Your task to perform on an android device: add a label to a message in the gmail app Image 0: 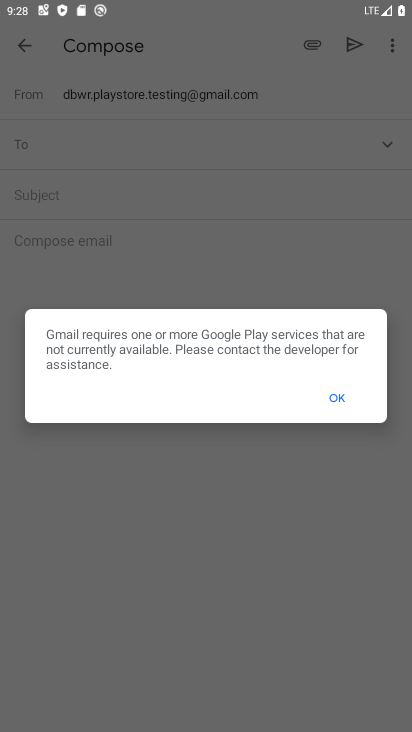
Step 0: click (353, 394)
Your task to perform on an android device: add a label to a message in the gmail app Image 1: 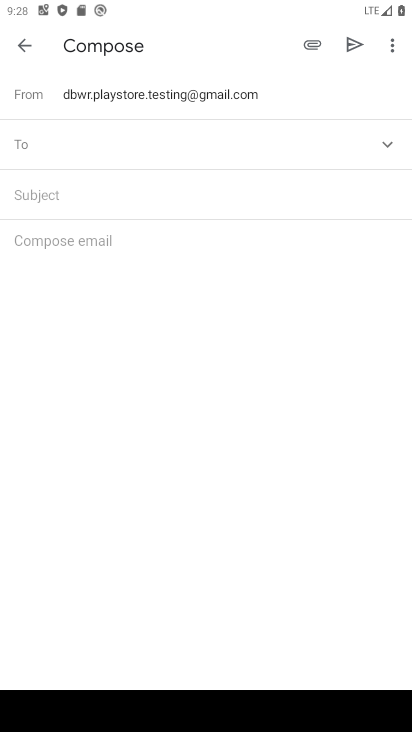
Step 1: click (20, 44)
Your task to perform on an android device: add a label to a message in the gmail app Image 2: 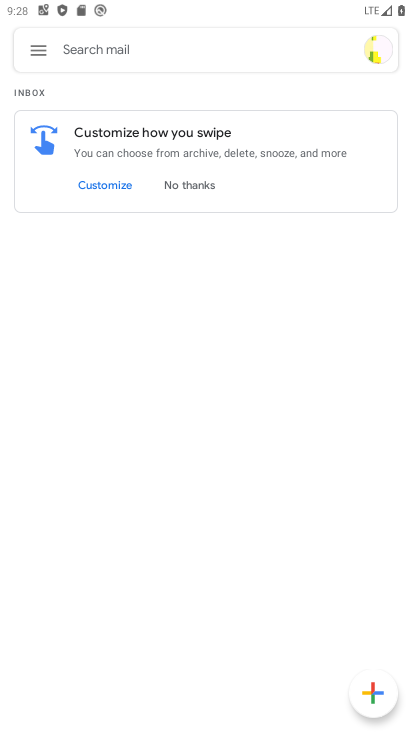
Step 2: click (32, 48)
Your task to perform on an android device: add a label to a message in the gmail app Image 3: 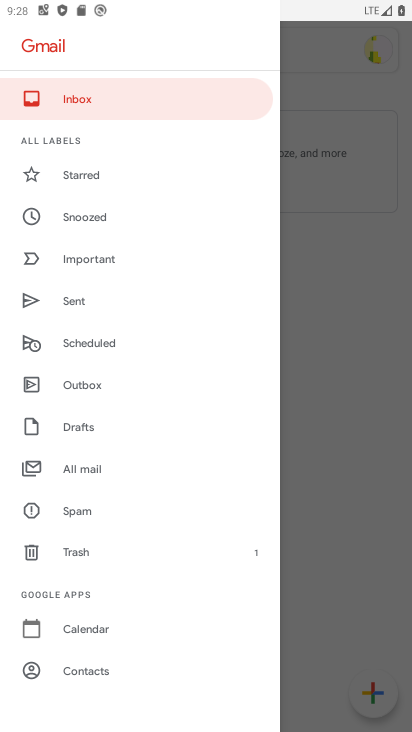
Step 3: click (81, 475)
Your task to perform on an android device: add a label to a message in the gmail app Image 4: 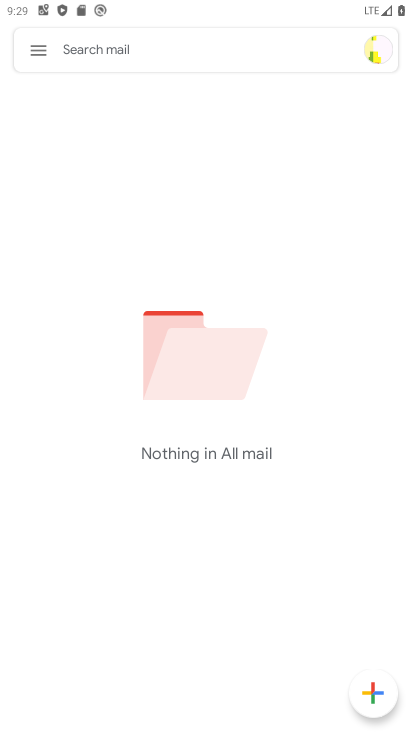
Step 4: task complete